Your task to perform on an android device: What's the weather going to be tomorrow? Image 0: 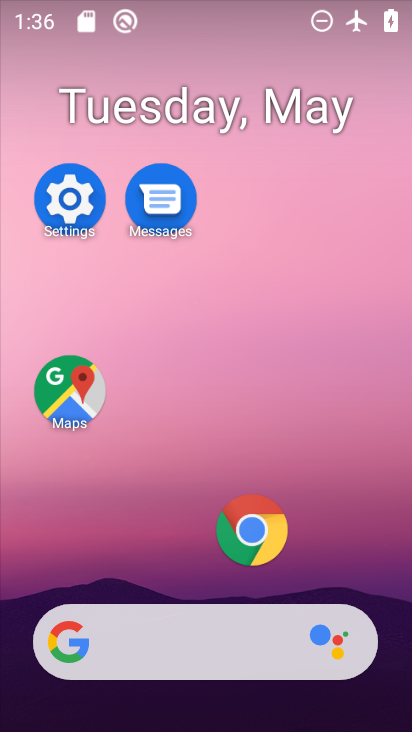
Step 0: drag from (205, 569) to (218, 234)
Your task to perform on an android device: What's the weather going to be tomorrow? Image 1: 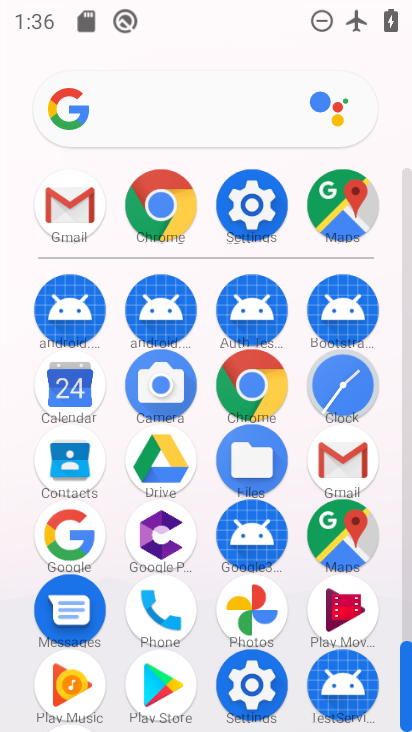
Step 1: click (96, 549)
Your task to perform on an android device: What's the weather going to be tomorrow? Image 2: 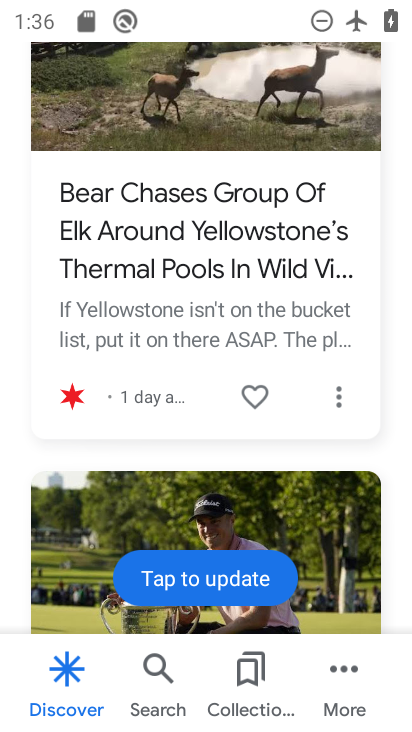
Step 2: drag from (212, 187) to (179, 725)
Your task to perform on an android device: What's the weather going to be tomorrow? Image 3: 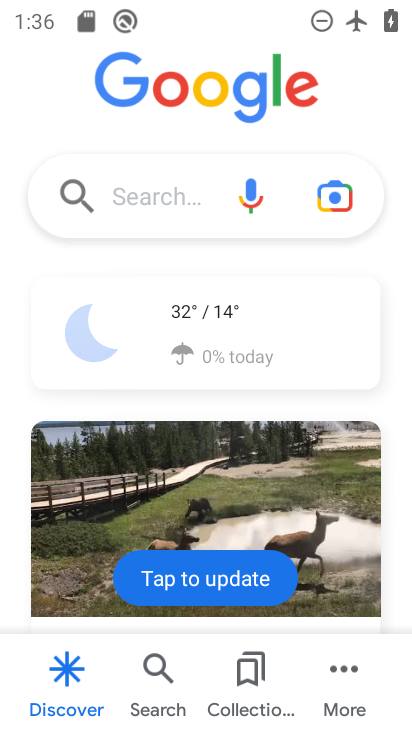
Step 3: click (217, 350)
Your task to perform on an android device: What's the weather going to be tomorrow? Image 4: 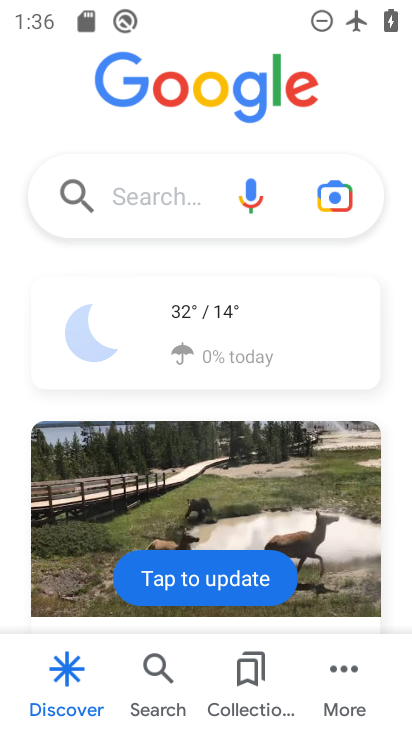
Step 4: click (235, 288)
Your task to perform on an android device: What's the weather going to be tomorrow? Image 5: 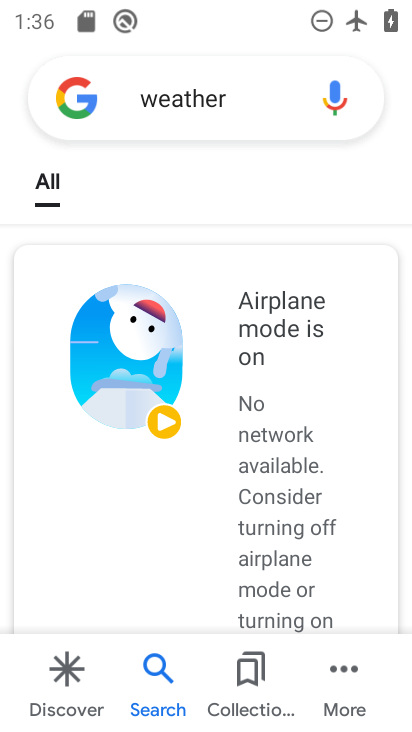
Step 5: click (77, 689)
Your task to perform on an android device: What's the weather going to be tomorrow? Image 6: 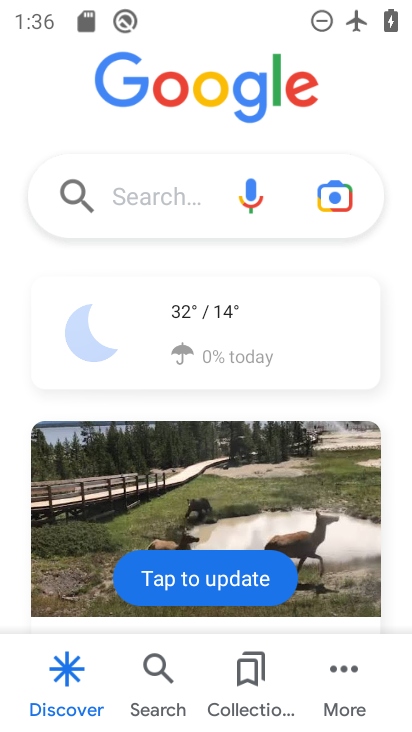
Step 6: click (166, 355)
Your task to perform on an android device: What's the weather going to be tomorrow? Image 7: 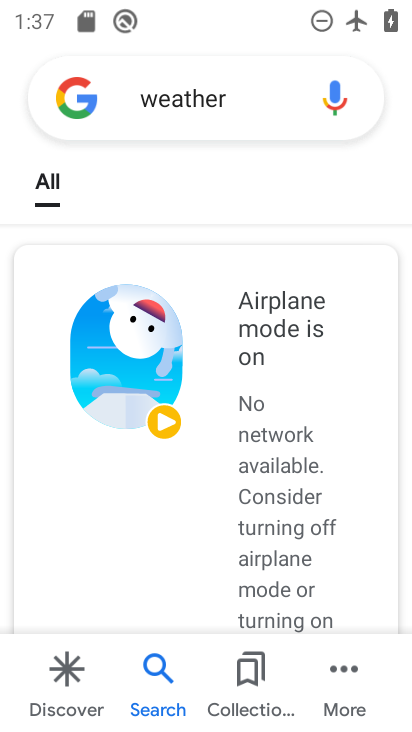
Step 7: task complete